Your task to perform on an android device: open app "Google Maps" (install if not already installed) Image 0: 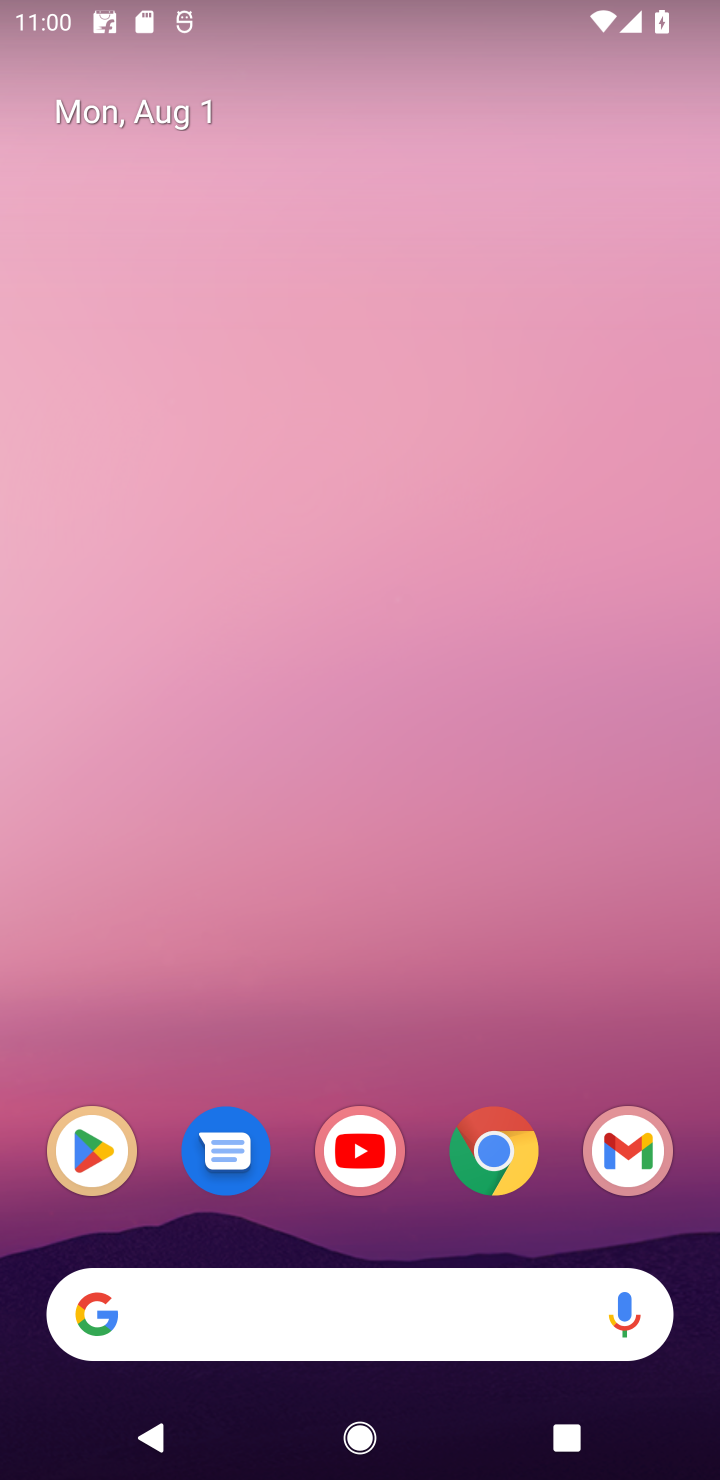
Step 0: click (110, 1150)
Your task to perform on an android device: open app "Google Maps" (install if not already installed) Image 1: 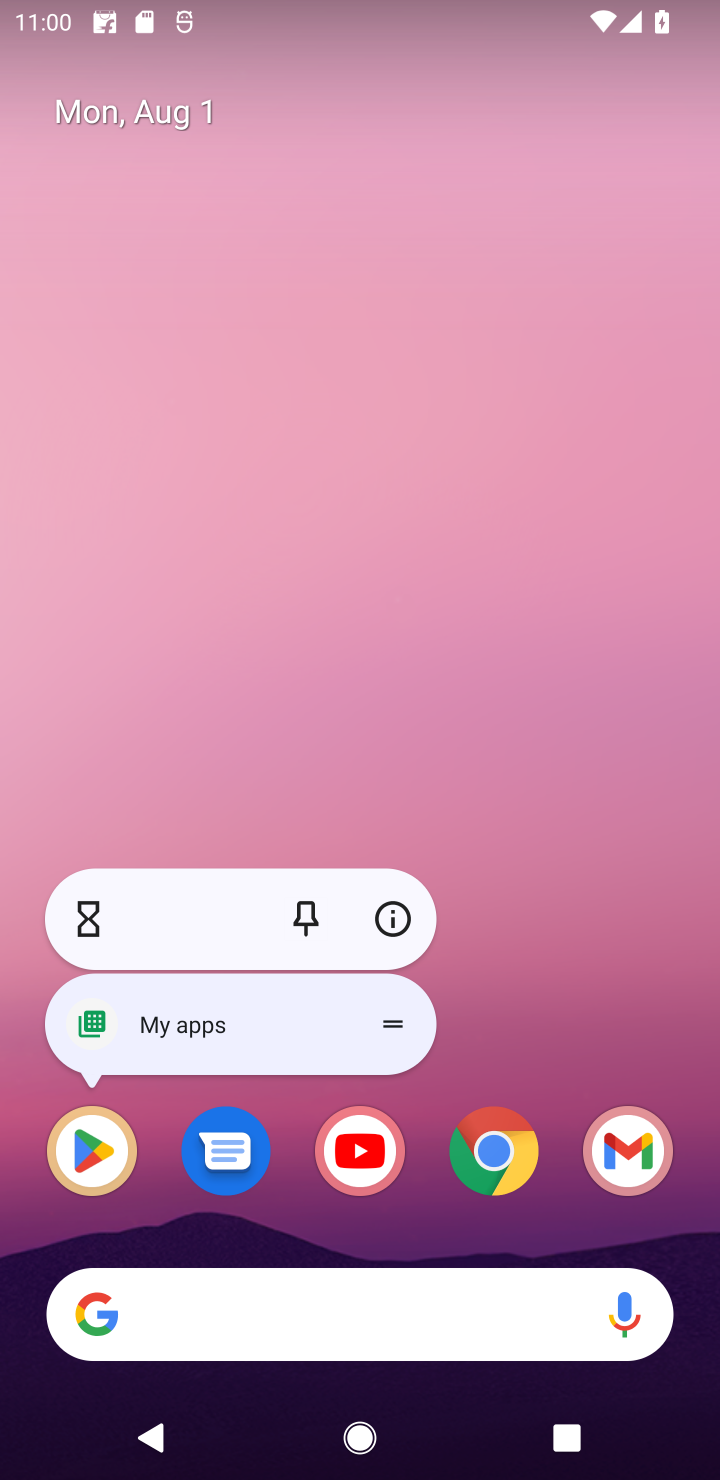
Step 1: click (110, 1150)
Your task to perform on an android device: open app "Google Maps" (install if not already installed) Image 2: 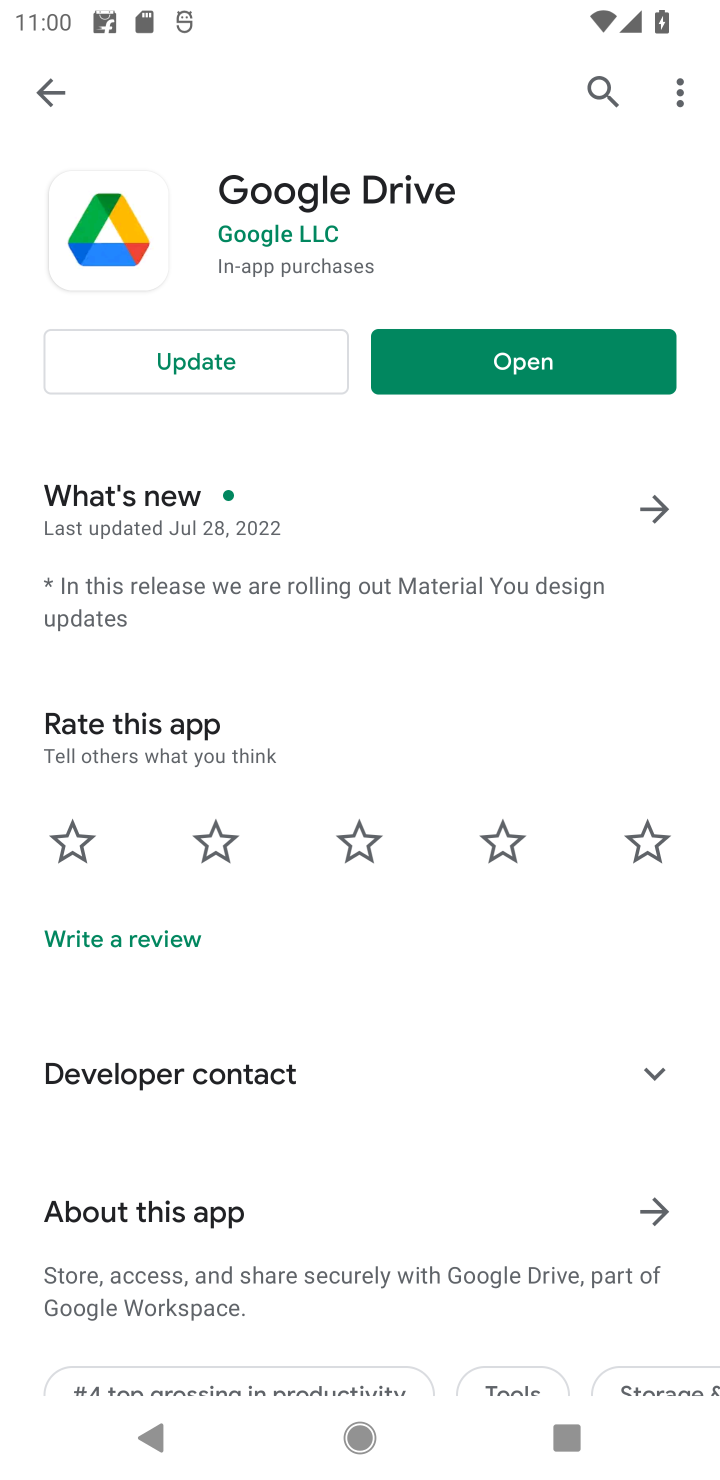
Step 2: click (601, 99)
Your task to perform on an android device: open app "Google Maps" (install if not already installed) Image 3: 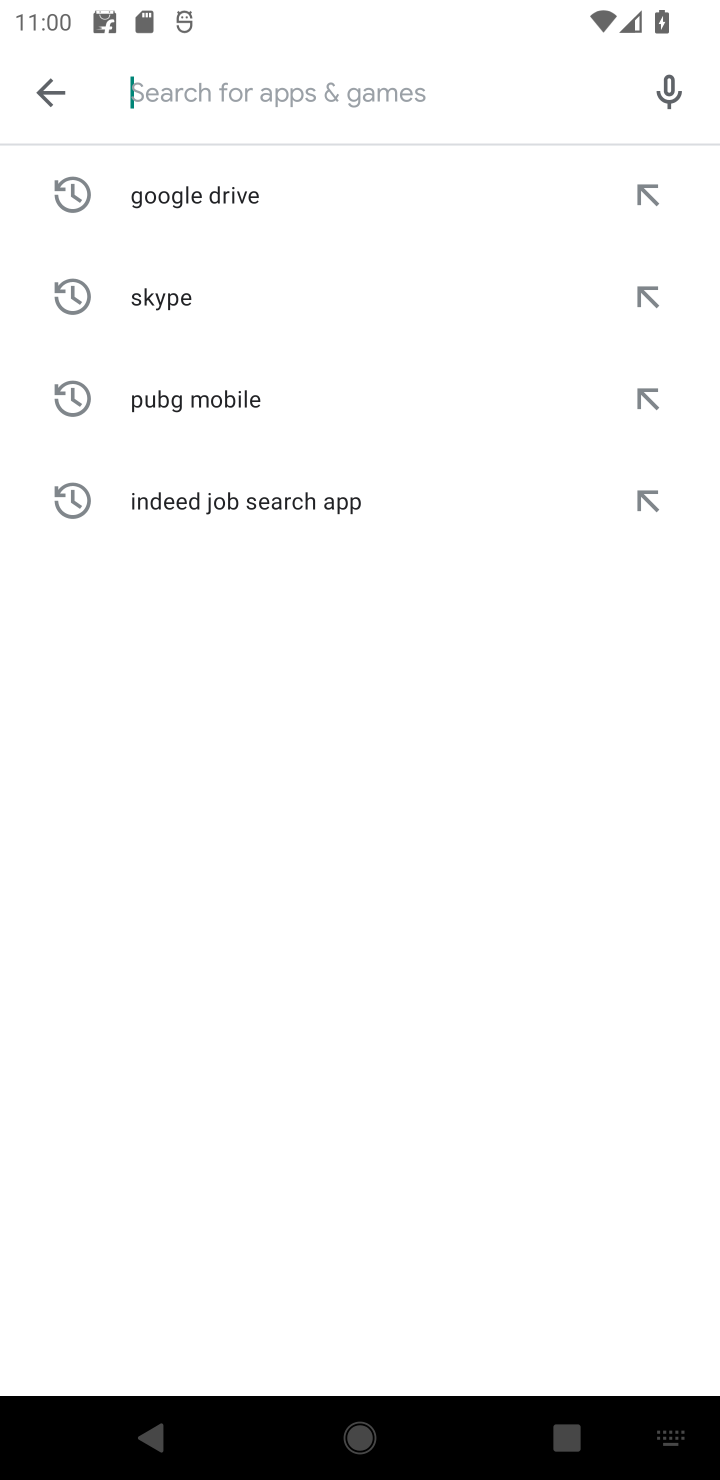
Step 3: type ""Google Maps"
Your task to perform on an android device: open app "Google Maps" (install if not already installed) Image 4: 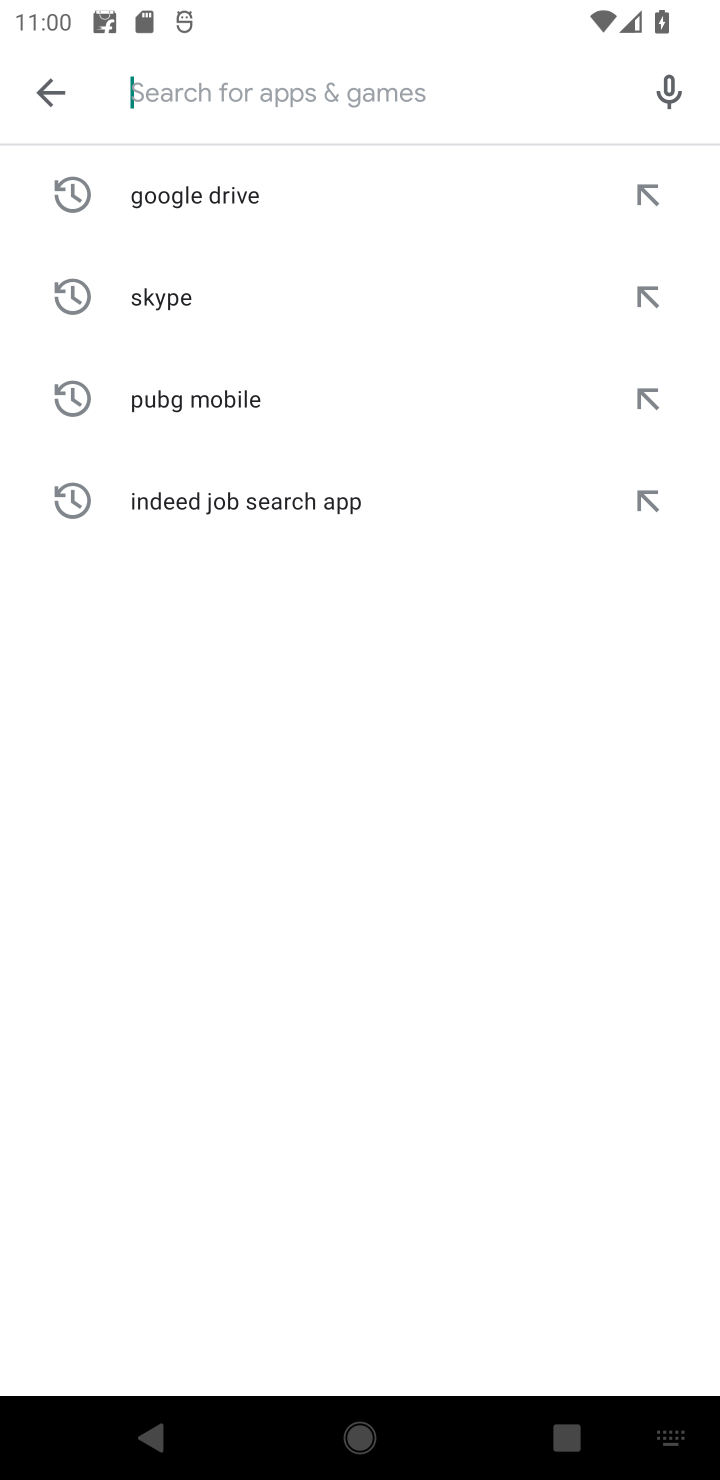
Step 4: type ""
Your task to perform on an android device: open app "Google Maps" (install if not already installed) Image 5: 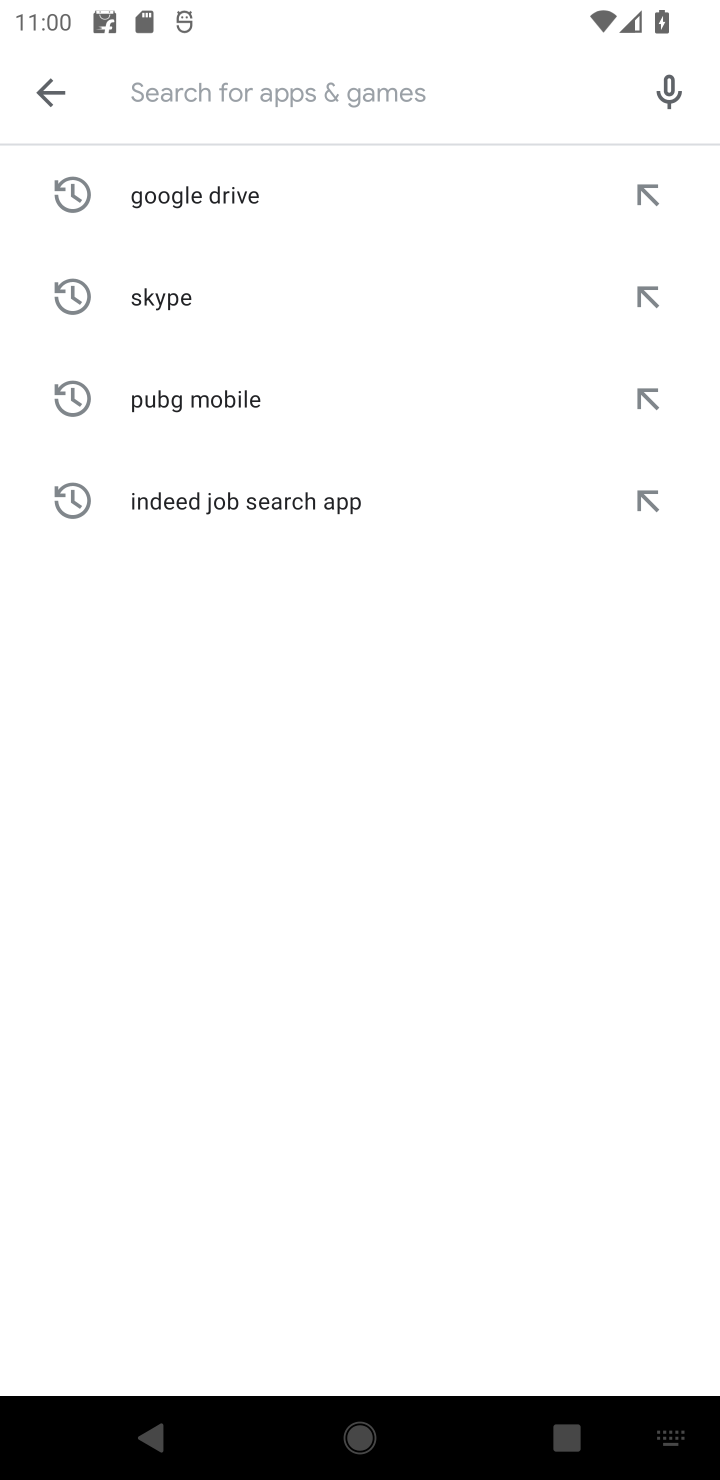
Step 5: click (286, 120)
Your task to perform on an android device: open app "Google Maps" (install if not already installed) Image 6: 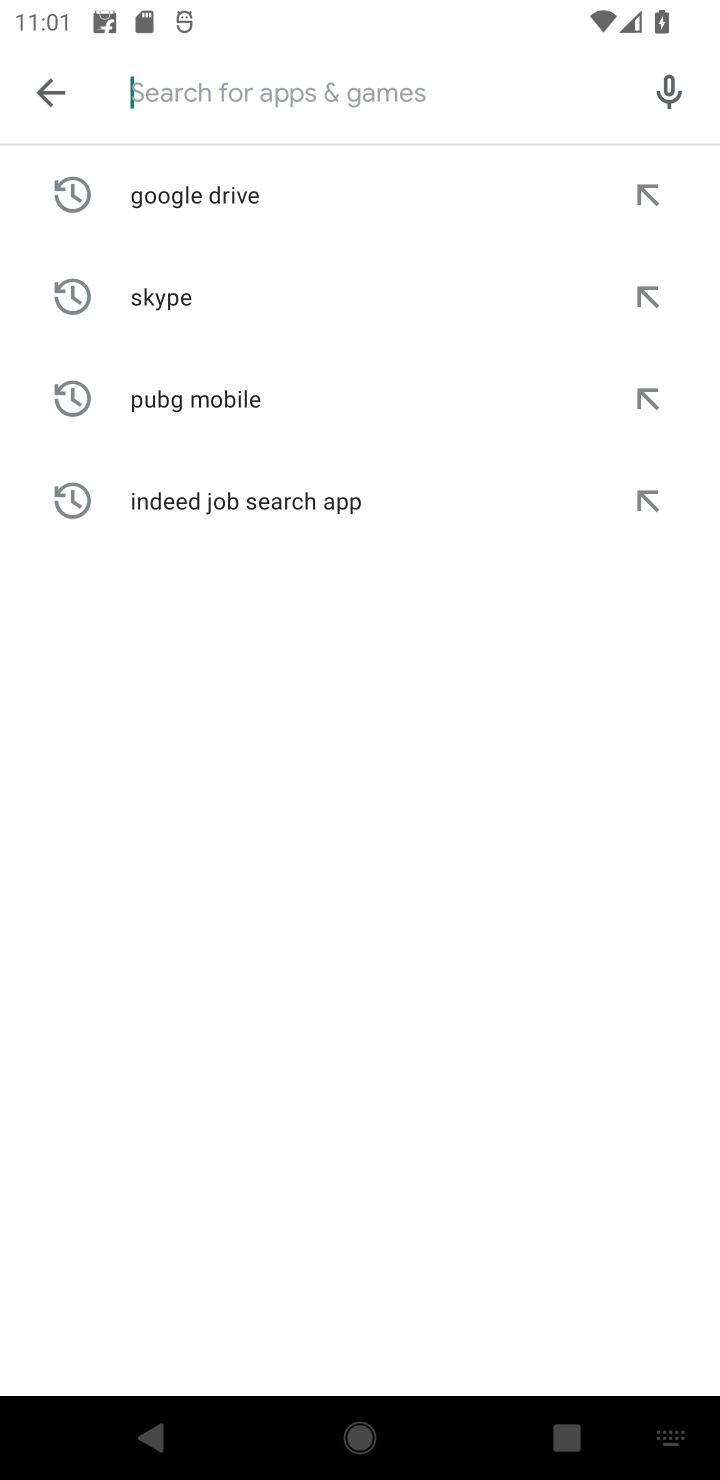
Step 6: type "Google Maps"
Your task to perform on an android device: open app "Google Maps" (install if not already installed) Image 7: 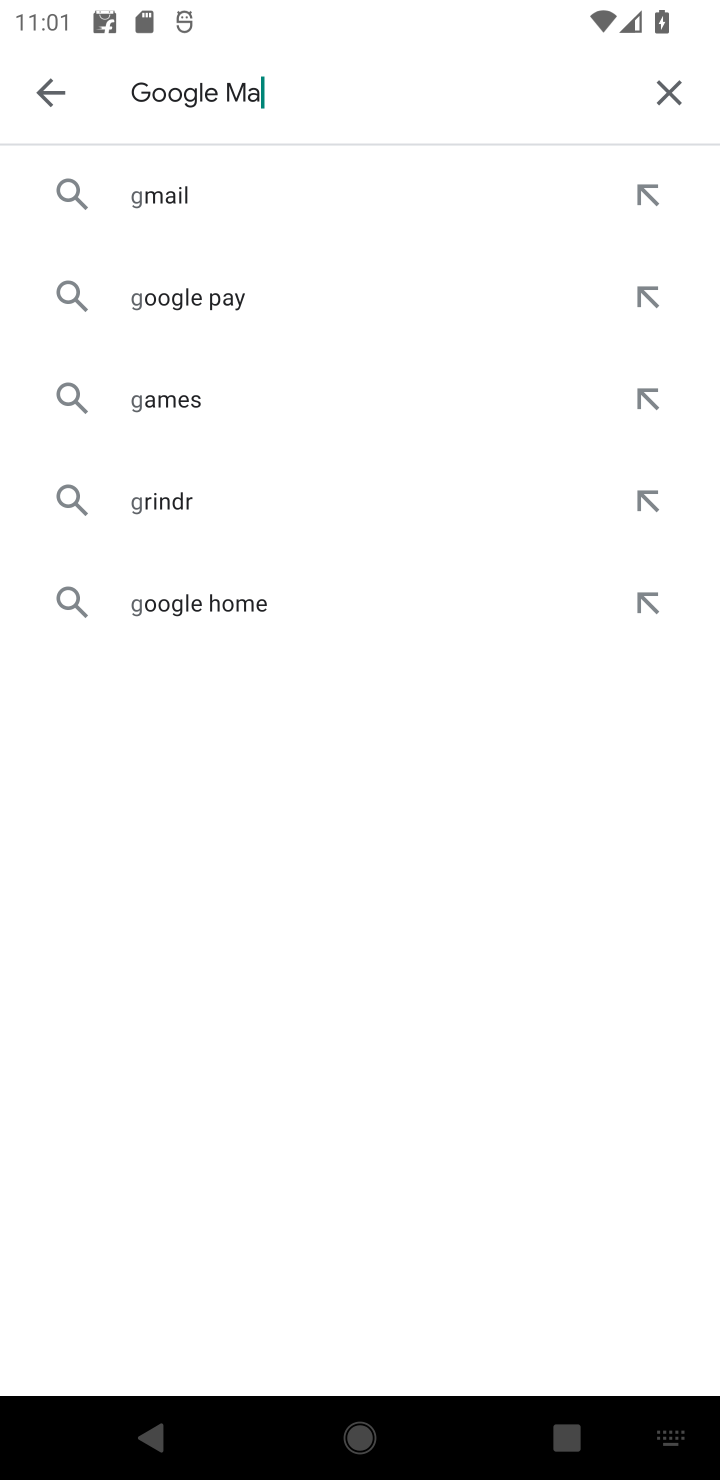
Step 7: type ""
Your task to perform on an android device: open app "Google Maps" (install if not already installed) Image 8: 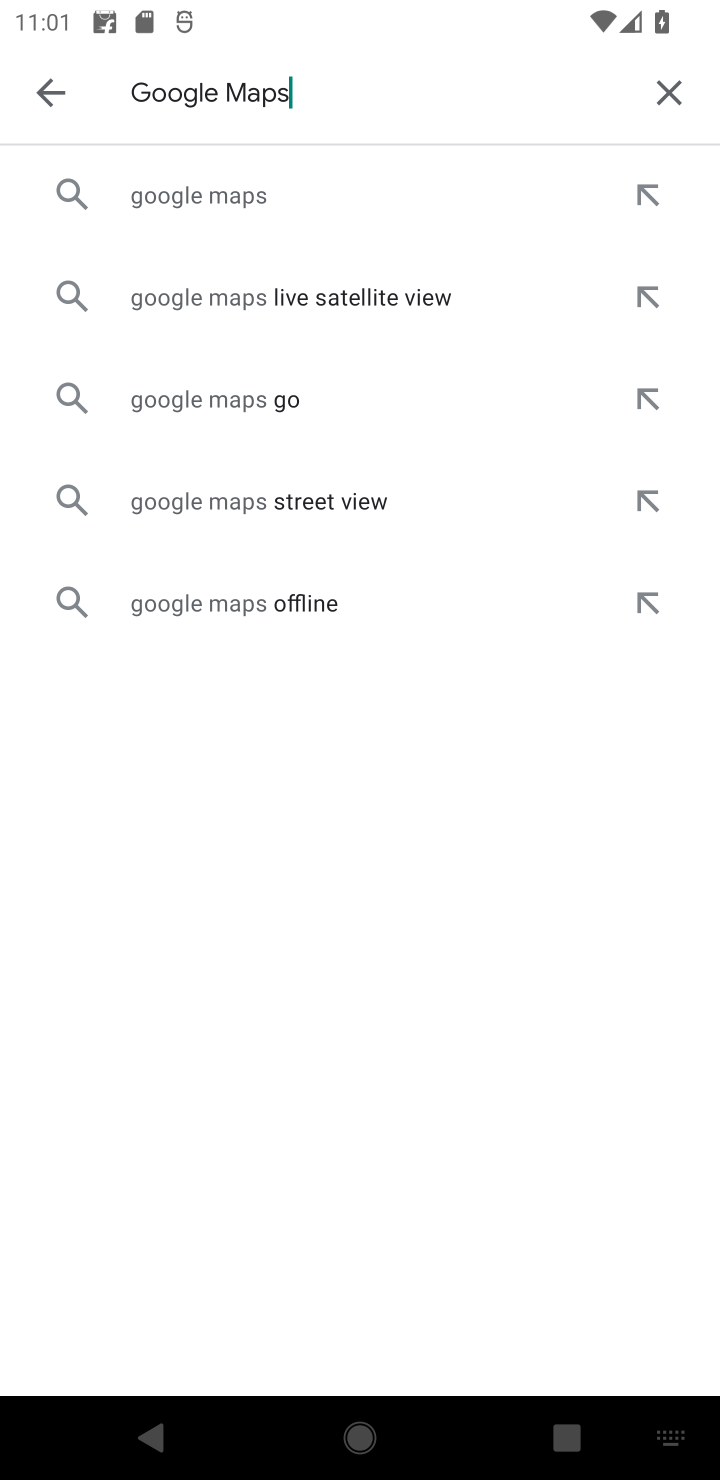
Step 8: click (252, 181)
Your task to perform on an android device: open app "Google Maps" (install if not already installed) Image 9: 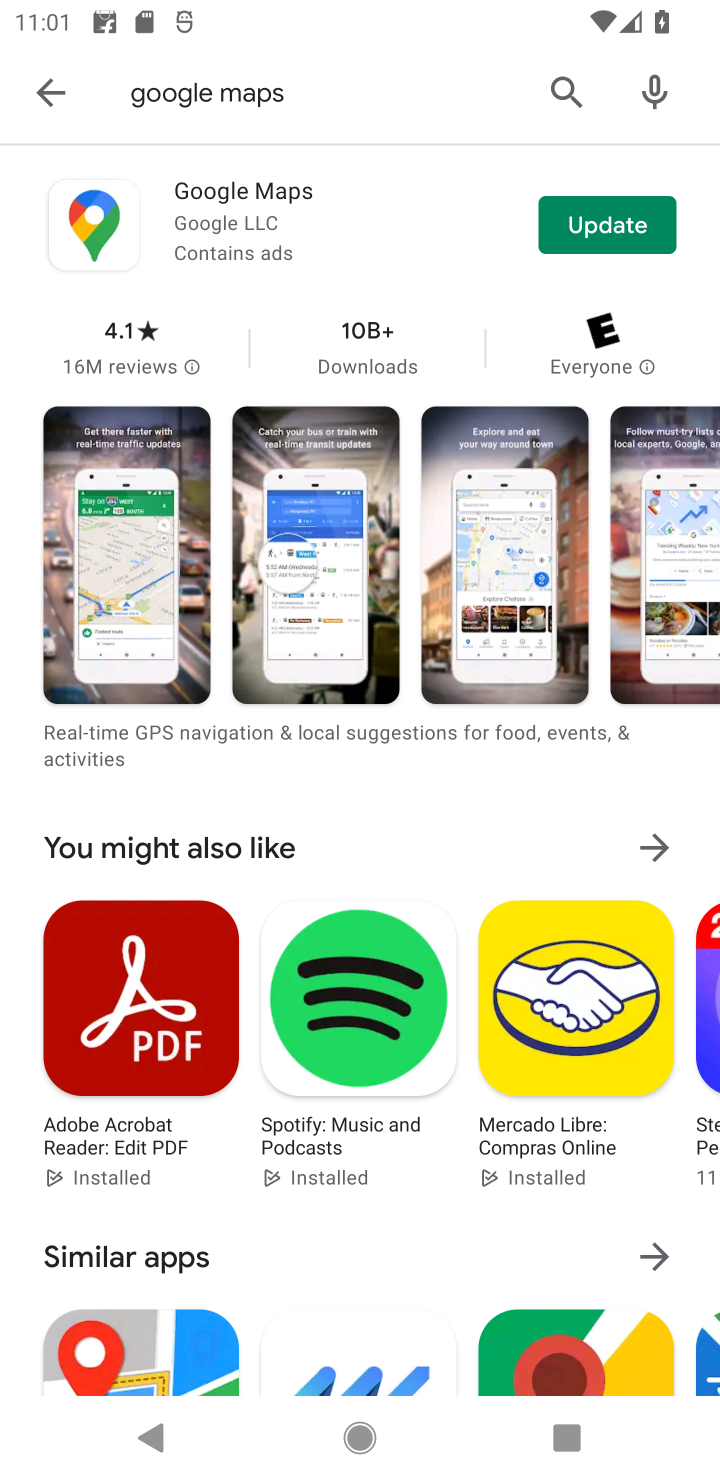
Step 9: click (606, 211)
Your task to perform on an android device: open app "Google Maps" (install if not already installed) Image 10: 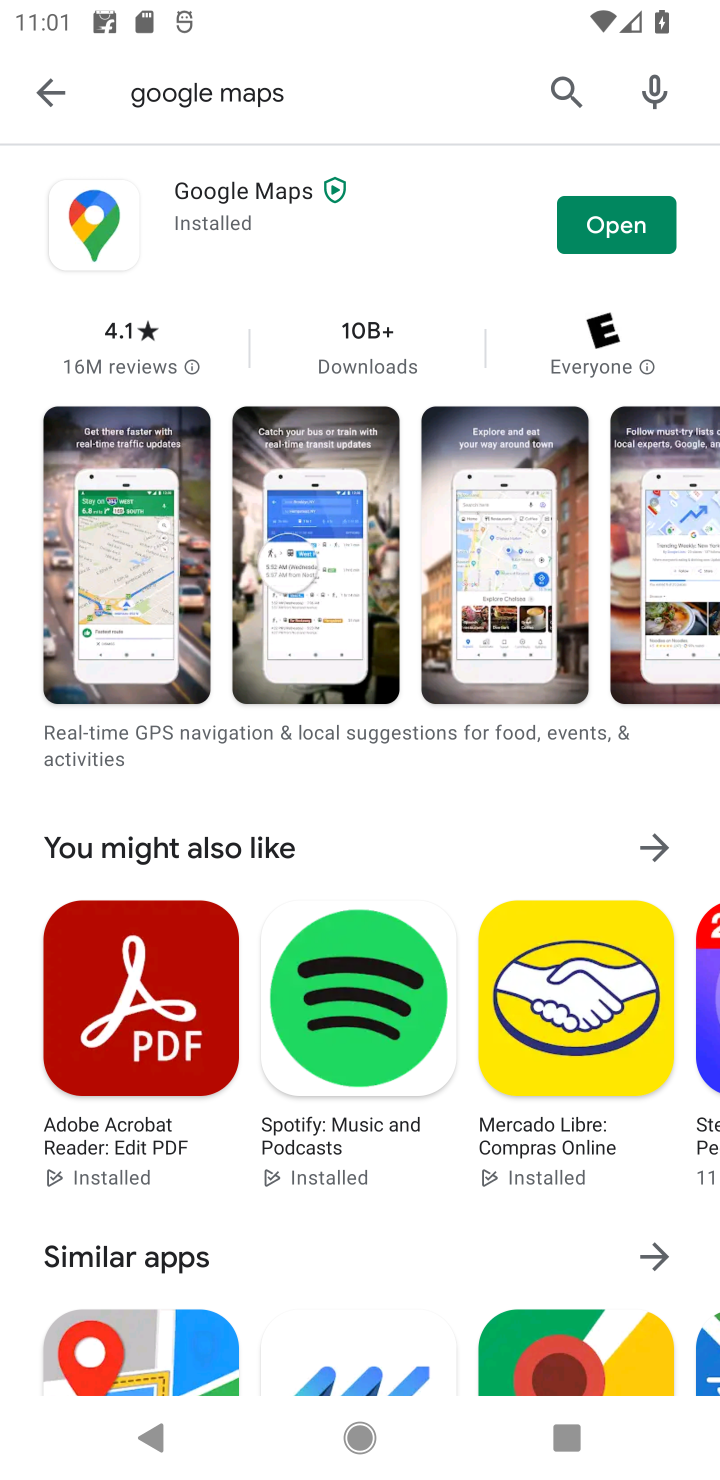
Step 10: click (566, 220)
Your task to perform on an android device: open app "Google Maps" (install if not already installed) Image 11: 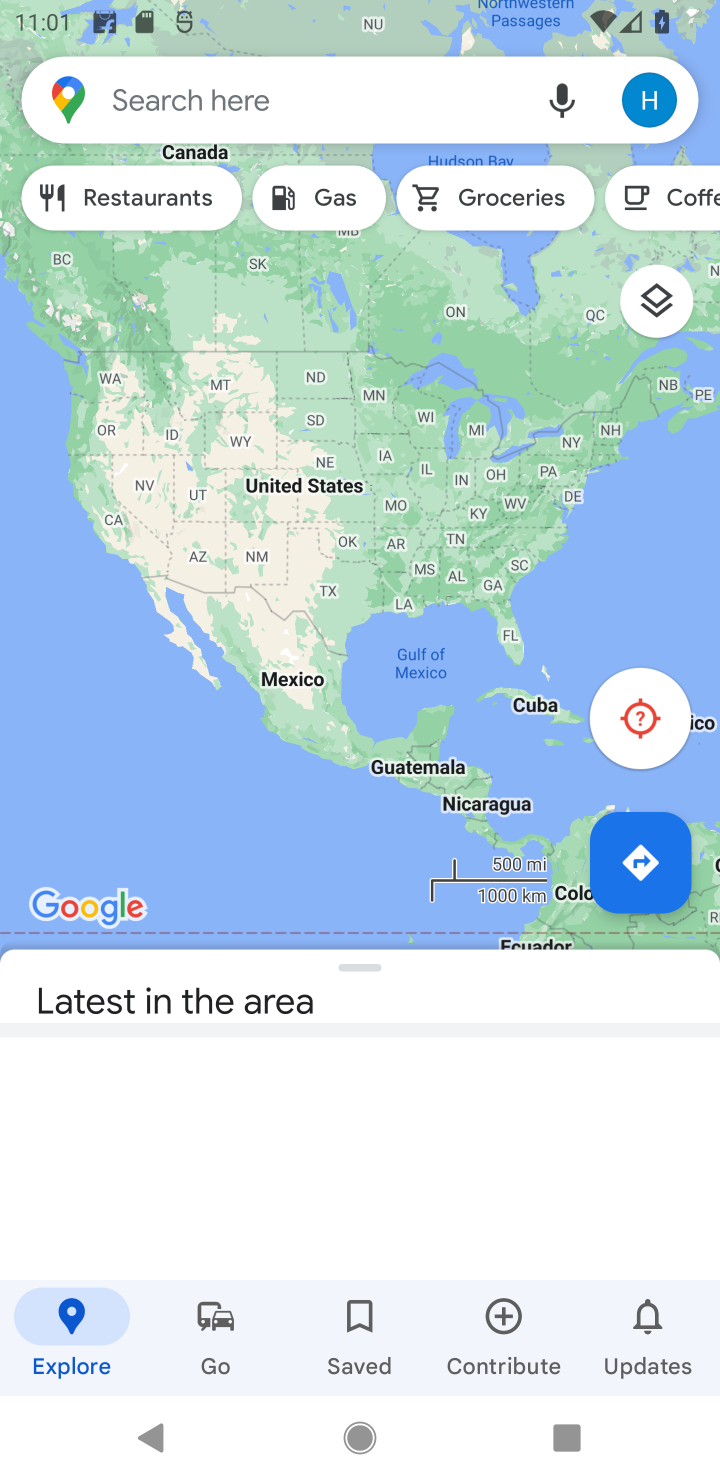
Step 11: task complete